Your task to perform on an android device: Open maps Image 0: 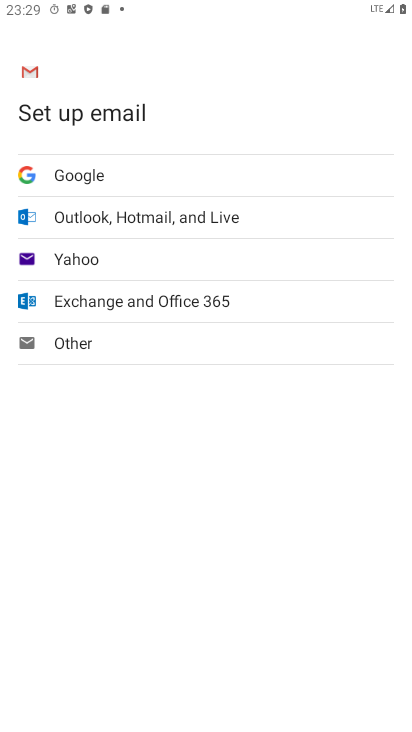
Step 0: press home button
Your task to perform on an android device: Open maps Image 1: 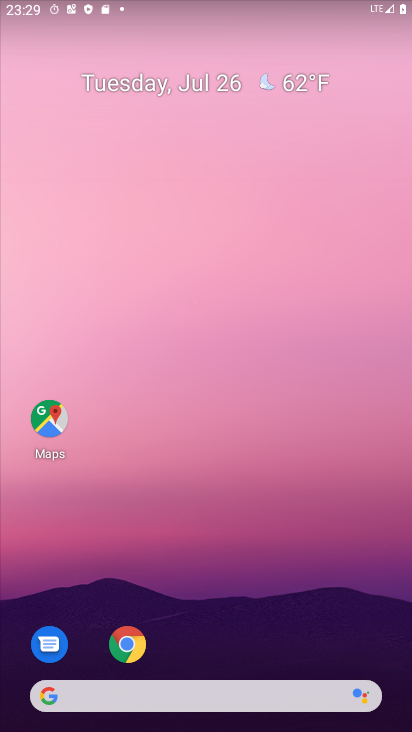
Step 1: click (47, 417)
Your task to perform on an android device: Open maps Image 2: 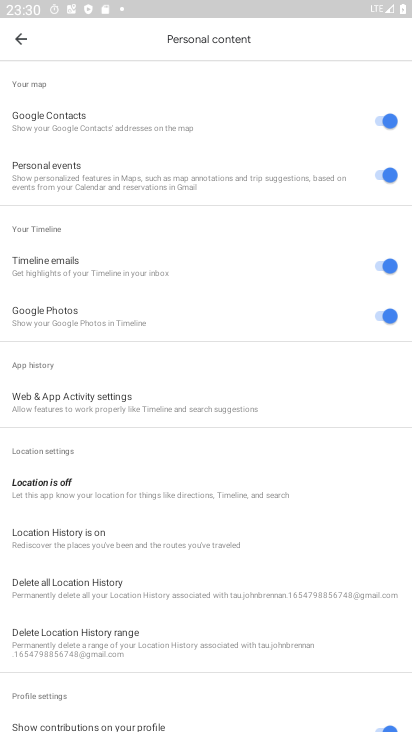
Step 2: task complete